Your task to perform on an android device: Open settings Image 0: 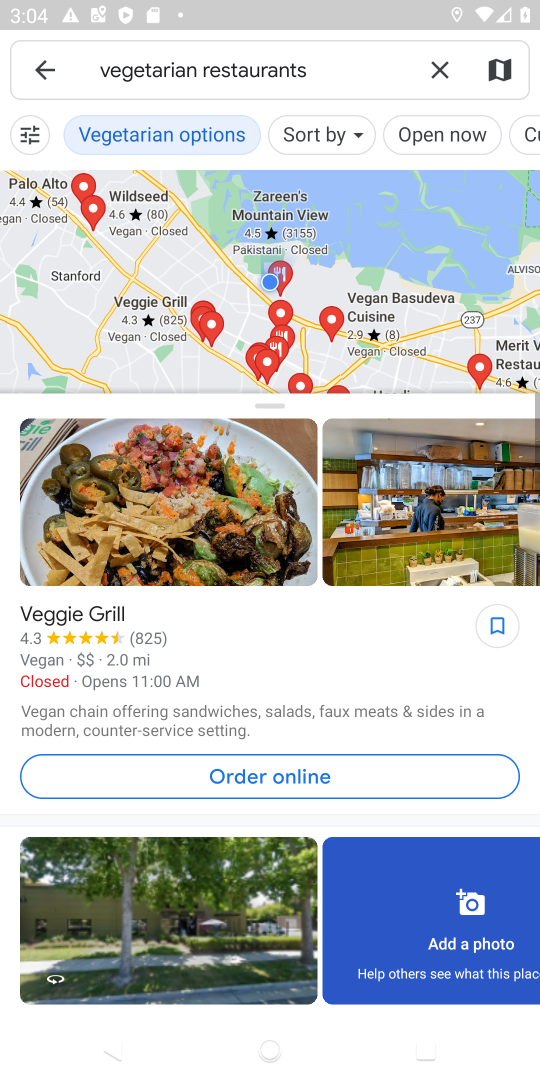
Step 0: press back button
Your task to perform on an android device: Open settings Image 1: 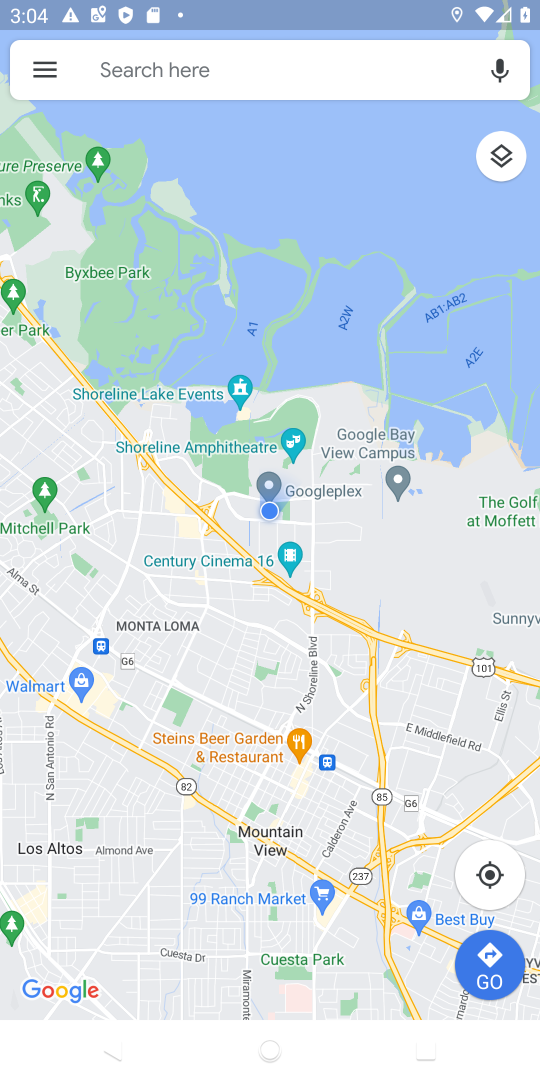
Step 1: press back button
Your task to perform on an android device: Open settings Image 2: 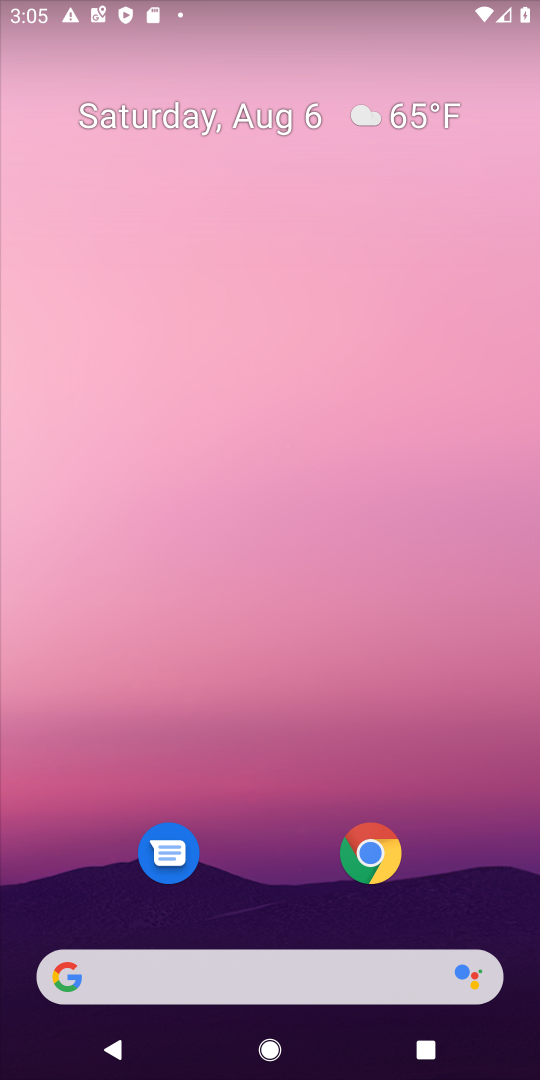
Step 2: drag from (300, 933) to (366, 143)
Your task to perform on an android device: Open settings Image 3: 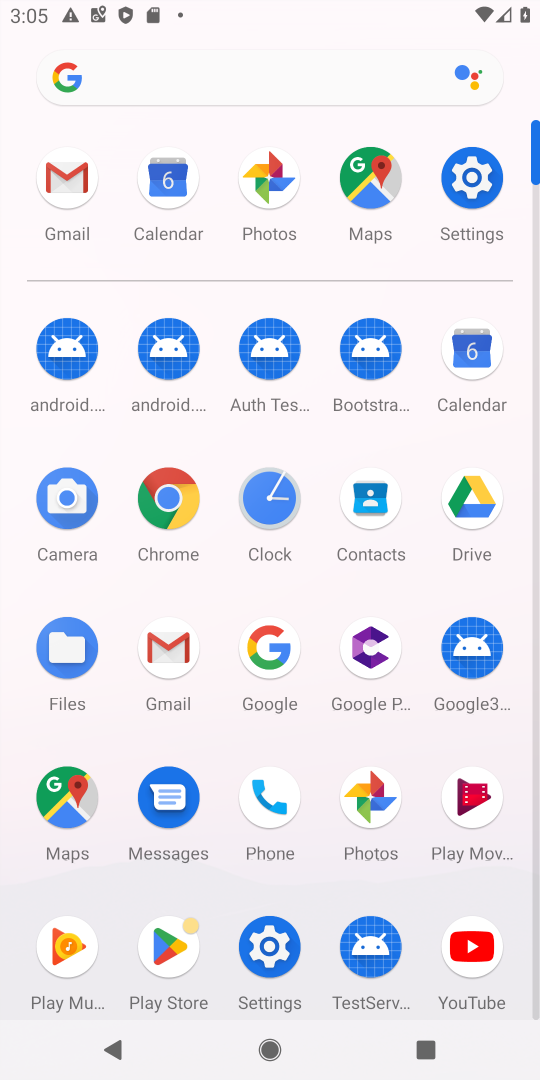
Step 3: click (453, 181)
Your task to perform on an android device: Open settings Image 4: 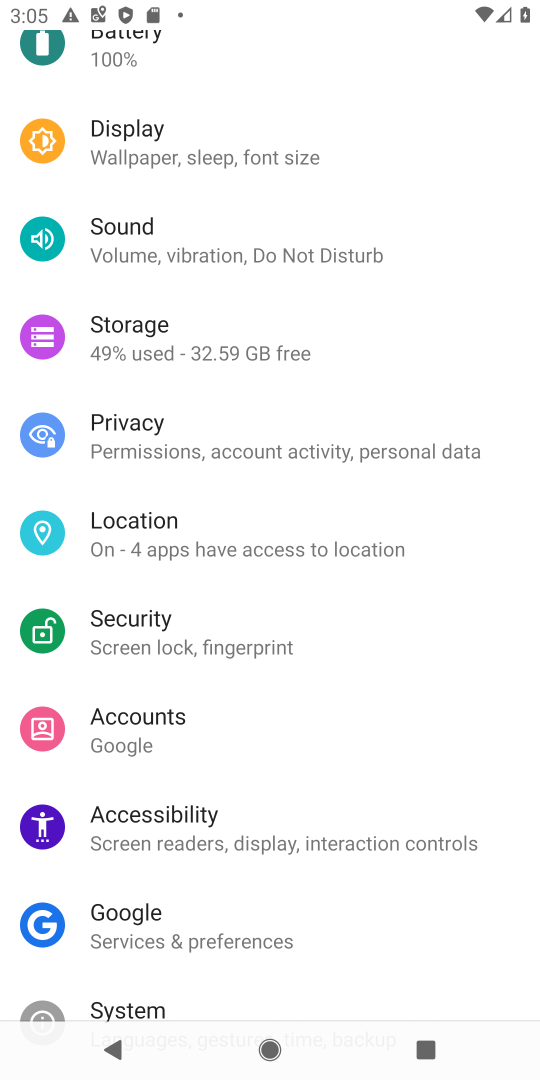
Step 4: task complete